Your task to perform on an android device: View the shopping cart on ebay. Search for razer thresher on ebay, select the first entry, add it to the cart, then select checkout. Image 0: 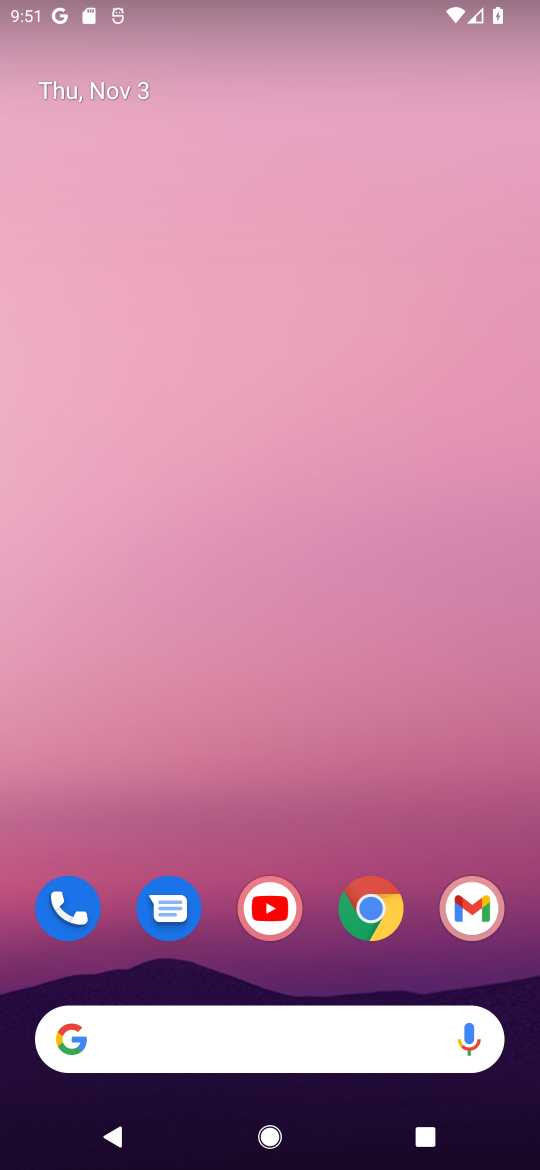
Step 0: click (370, 911)
Your task to perform on an android device: View the shopping cart on ebay. Search for razer thresher on ebay, select the first entry, add it to the cart, then select checkout. Image 1: 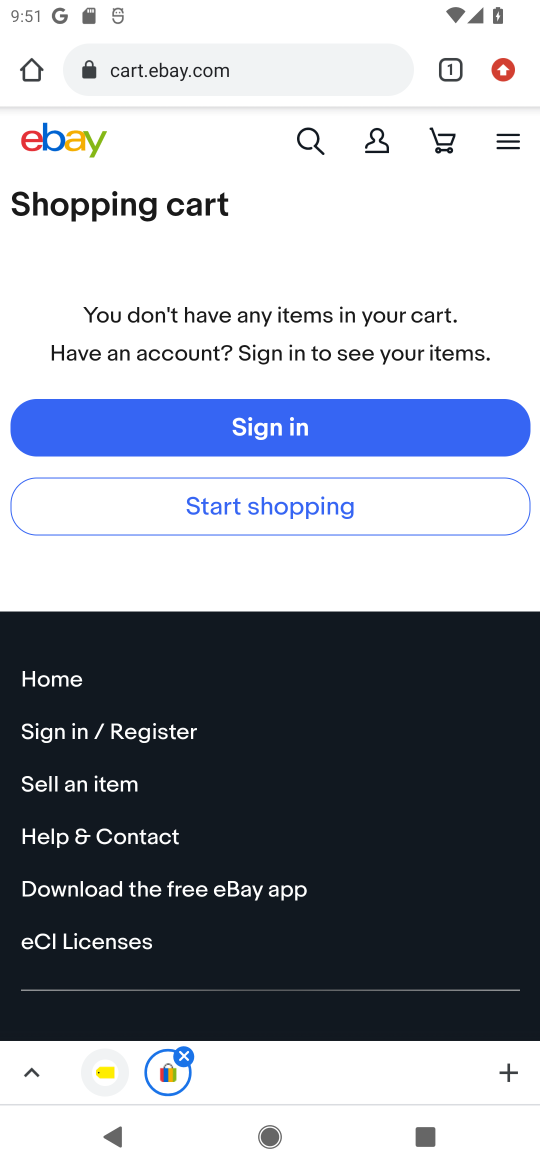
Step 1: click (306, 147)
Your task to perform on an android device: View the shopping cart on ebay. Search for razer thresher on ebay, select the first entry, add it to the cart, then select checkout. Image 2: 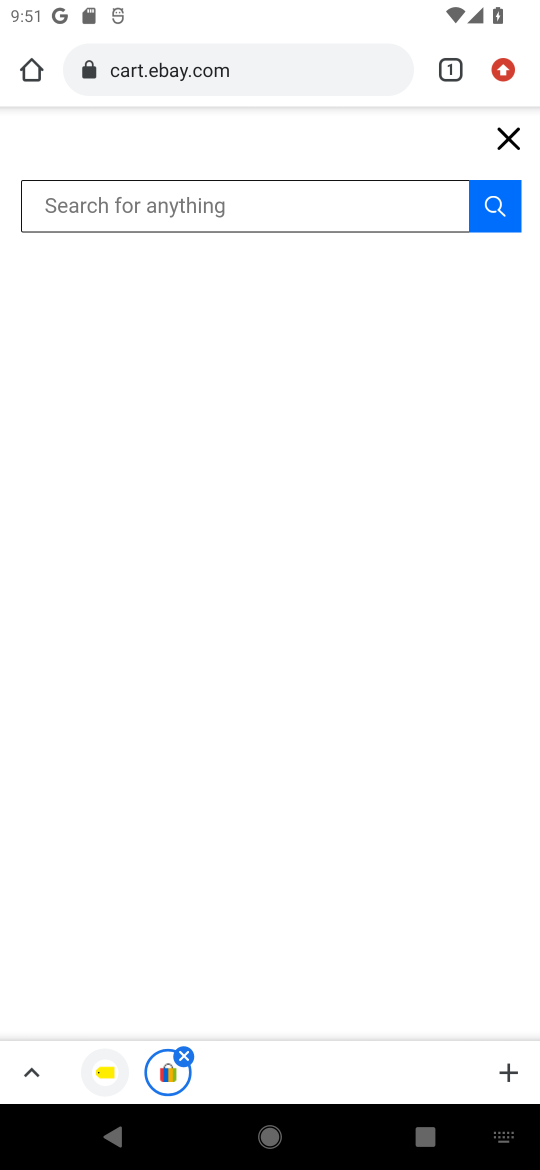
Step 2: type "razer thresher "
Your task to perform on an android device: View the shopping cart on ebay. Search for razer thresher on ebay, select the first entry, add it to the cart, then select checkout. Image 3: 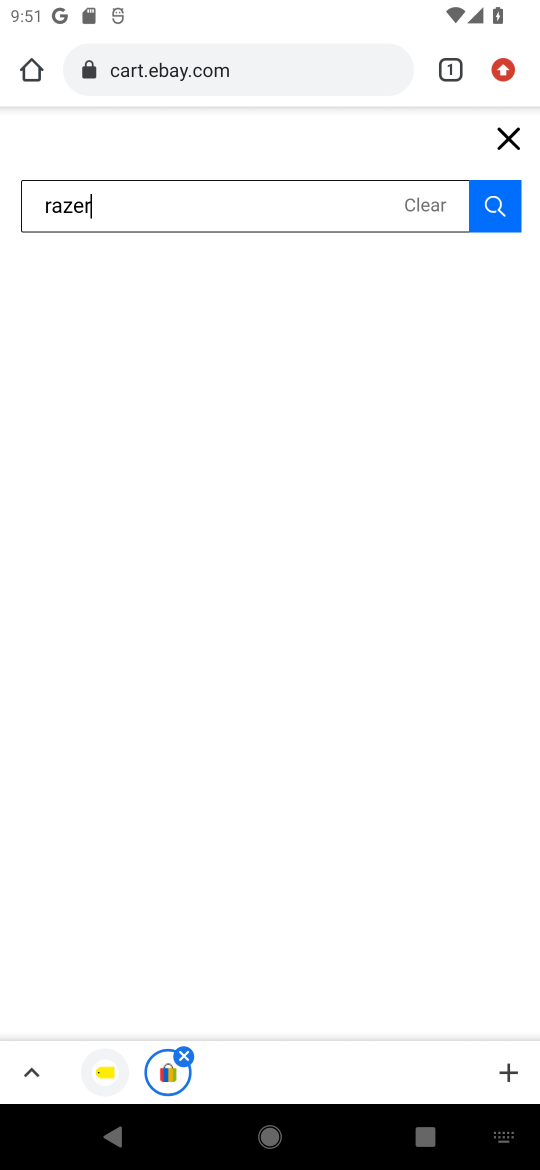
Step 3: press enter
Your task to perform on an android device: View the shopping cart on ebay. Search for razer thresher on ebay, select the first entry, add it to the cart, then select checkout. Image 4: 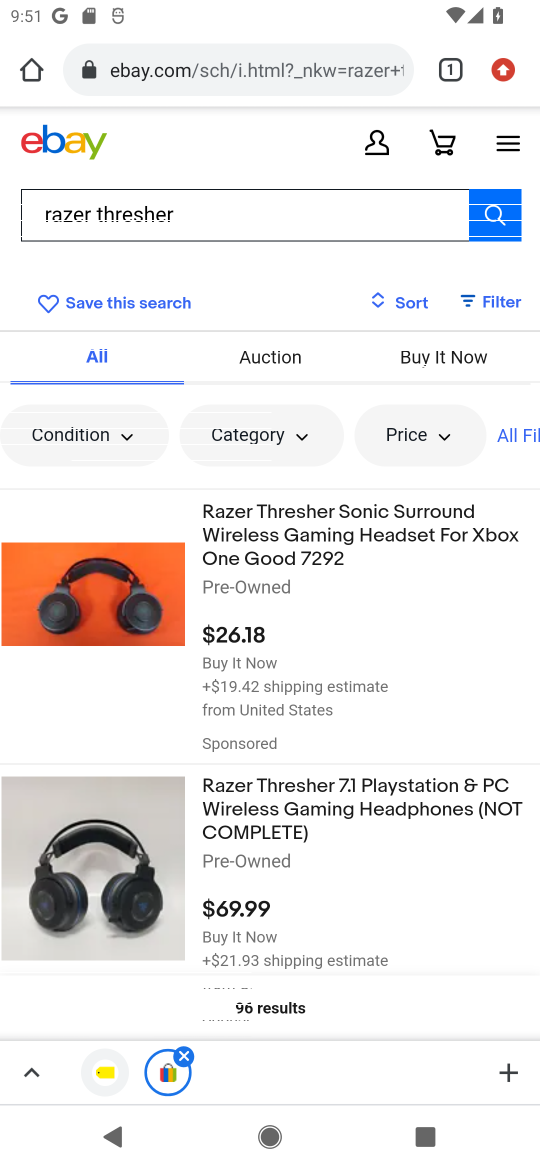
Step 4: click (143, 575)
Your task to perform on an android device: View the shopping cart on ebay. Search for razer thresher on ebay, select the first entry, add it to the cart, then select checkout. Image 5: 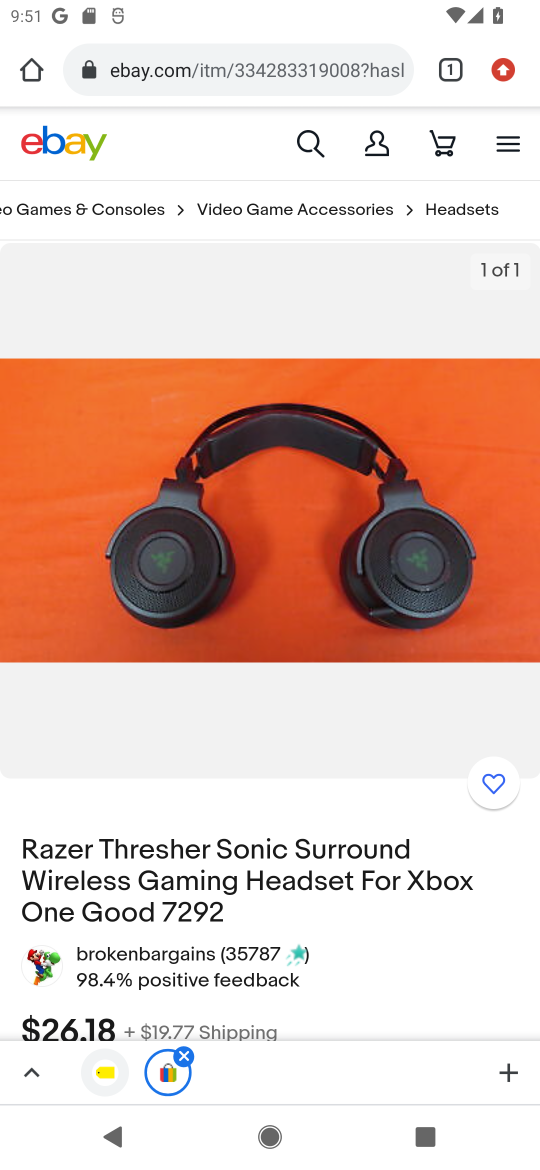
Step 5: drag from (431, 954) to (362, 521)
Your task to perform on an android device: View the shopping cart on ebay. Search for razer thresher on ebay, select the first entry, add it to the cart, then select checkout. Image 6: 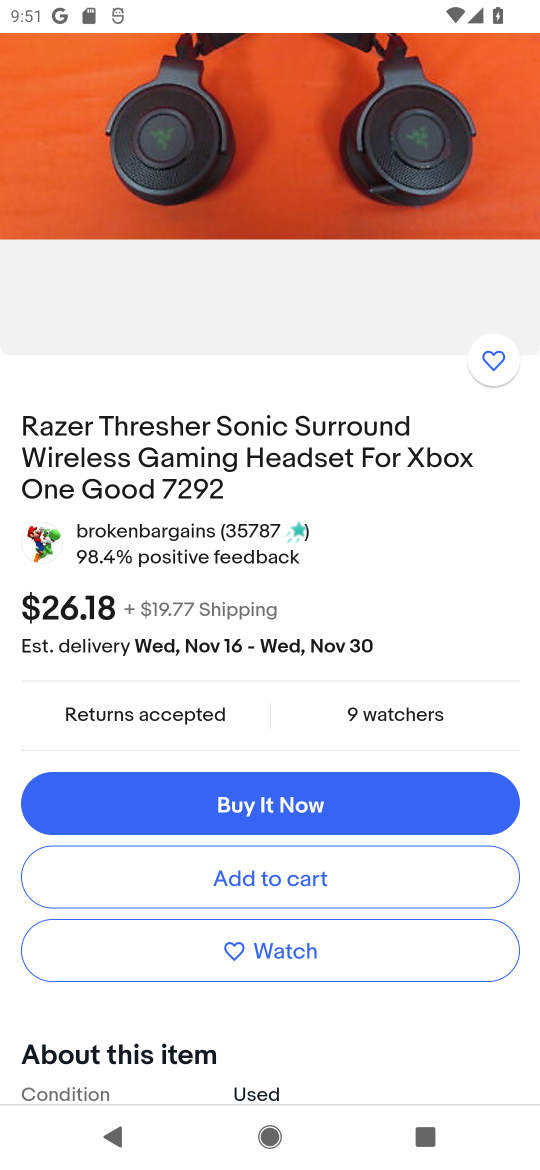
Step 6: click (315, 876)
Your task to perform on an android device: View the shopping cart on ebay. Search for razer thresher on ebay, select the first entry, add it to the cart, then select checkout. Image 7: 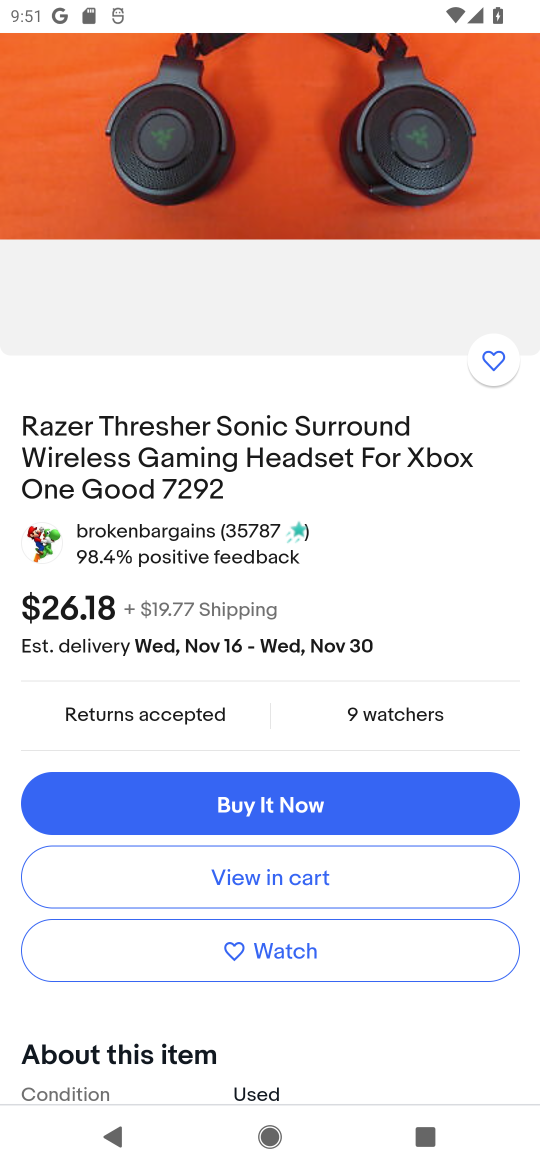
Step 7: click (281, 875)
Your task to perform on an android device: View the shopping cart on ebay. Search for razer thresher on ebay, select the first entry, add it to the cart, then select checkout. Image 8: 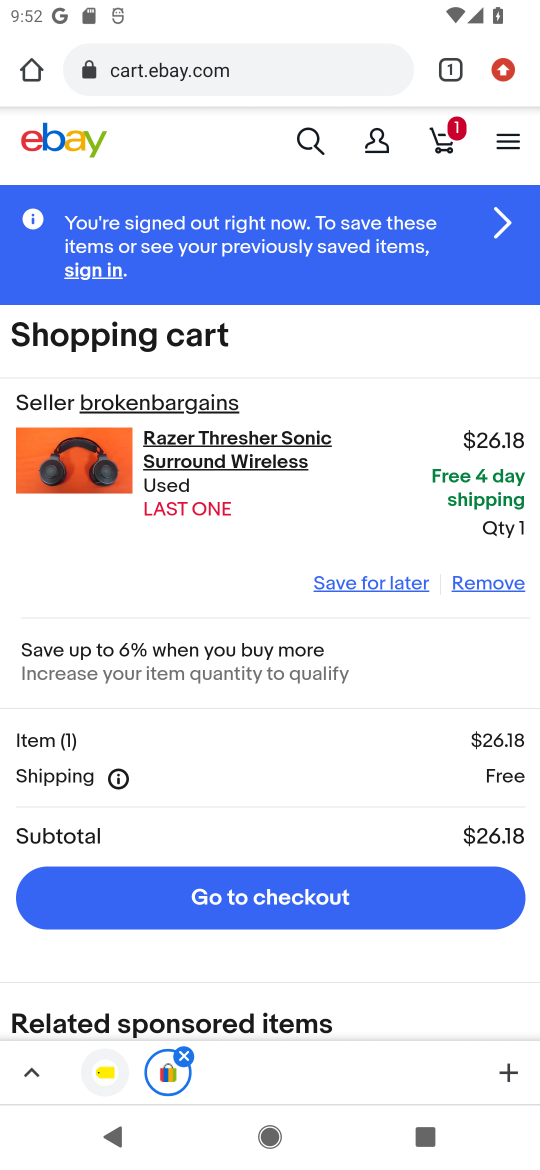
Step 8: click (338, 895)
Your task to perform on an android device: View the shopping cart on ebay. Search for razer thresher on ebay, select the first entry, add it to the cart, then select checkout. Image 9: 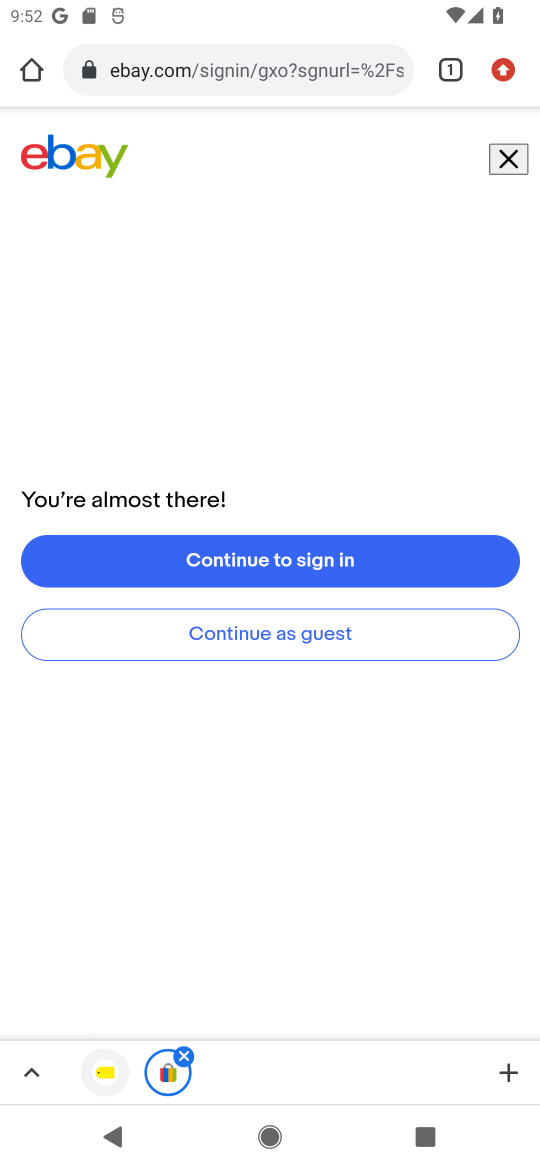
Step 9: task complete